Your task to perform on an android device: change the clock display to digital Image 0: 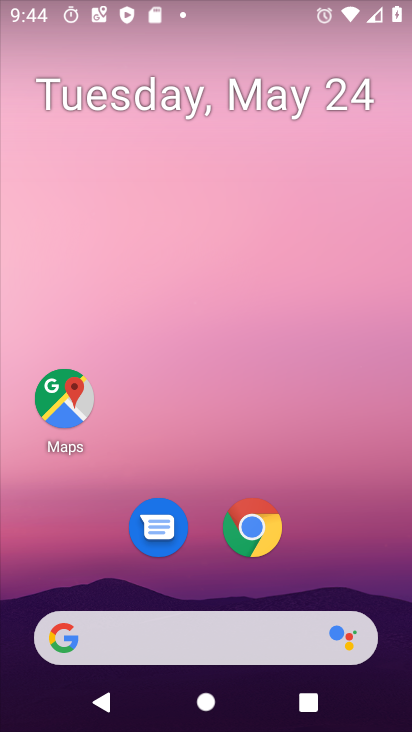
Step 0: click (389, 228)
Your task to perform on an android device: change the clock display to digital Image 1: 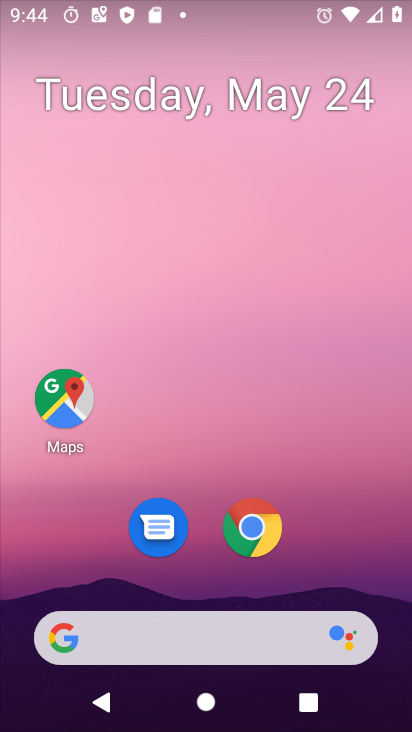
Step 1: drag from (363, 624) to (339, 204)
Your task to perform on an android device: change the clock display to digital Image 2: 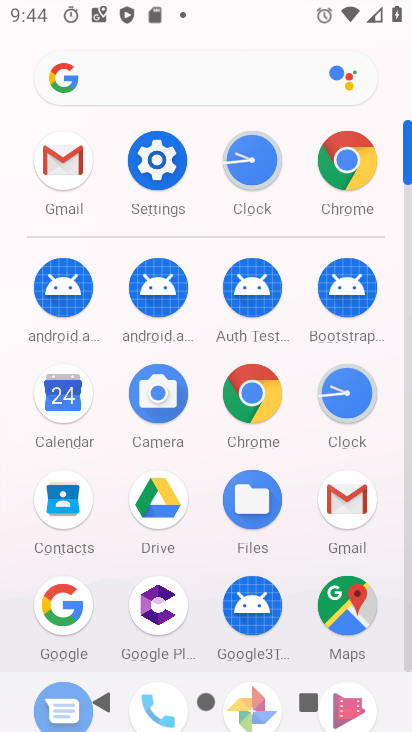
Step 2: click (345, 382)
Your task to perform on an android device: change the clock display to digital Image 3: 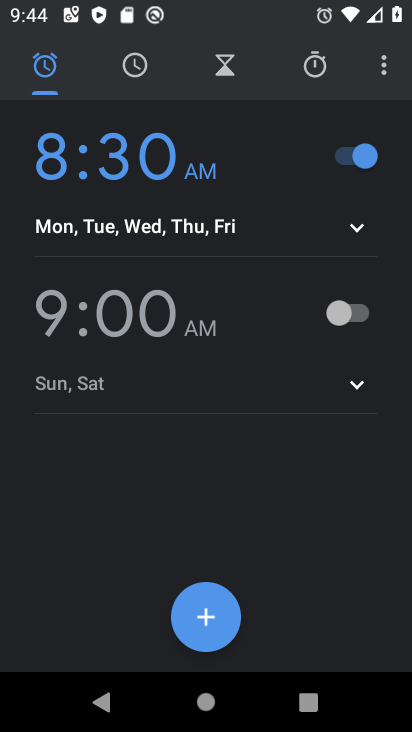
Step 3: click (378, 65)
Your task to perform on an android device: change the clock display to digital Image 4: 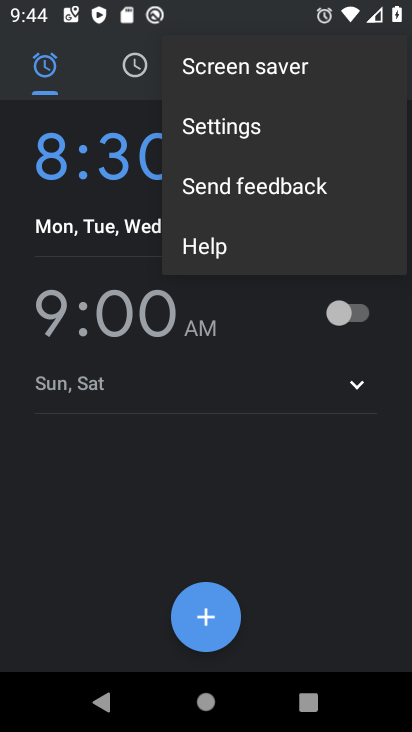
Step 4: click (234, 124)
Your task to perform on an android device: change the clock display to digital Image 5: 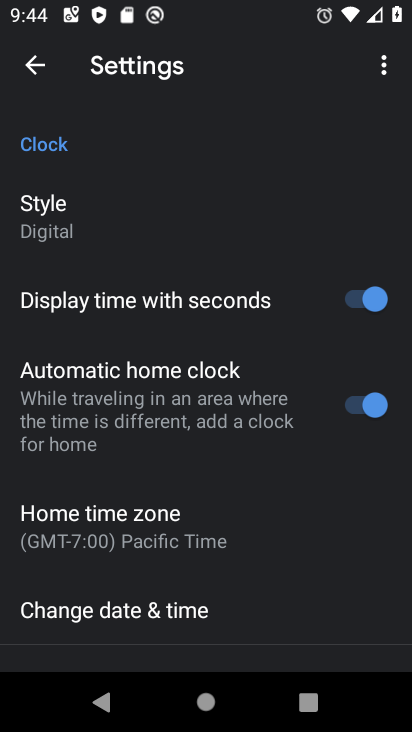
Step 5: click (49, 204)
Your task to perform on an android device: change the clock display to digital Image 6: 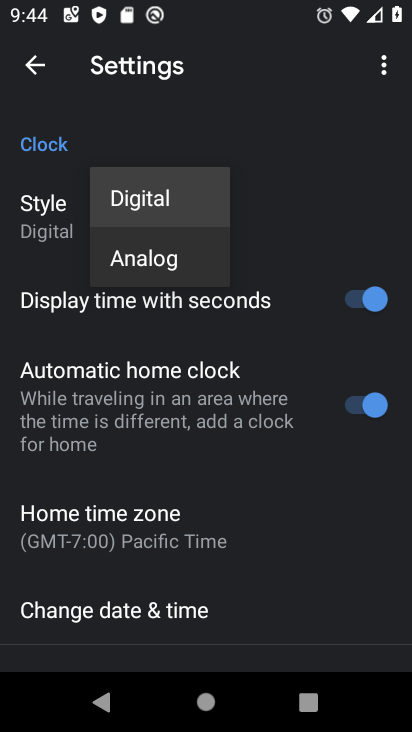
Step 6: click (152, 201)
Your task to perform on an android device: change the clock display to digital Image 7: 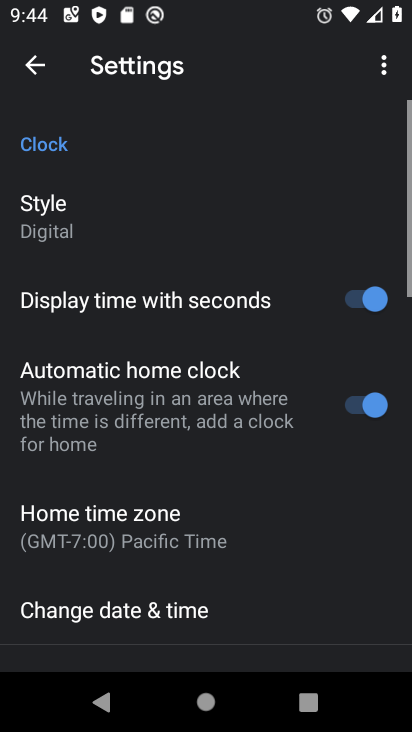
Step 7: task complete